Your task to perform on an android device: open the mobile data screen to see how much data has been used Image 0: 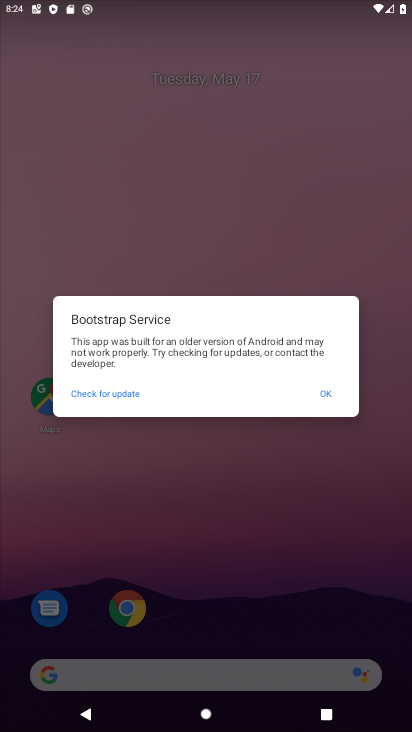
Step 0: click (331, 395)
Your task to perform on an android device: open the mobile data screen to see how much data has been used Image 1: 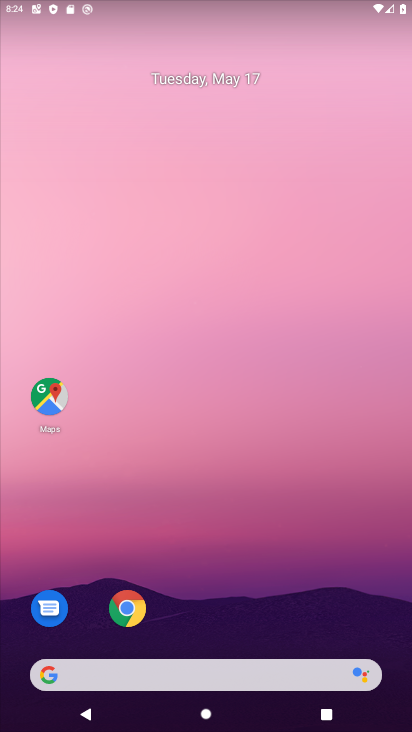
Step 1: drag from (304, 6) to (243, 606)
Your task to perform on an android device: open the mobile data screen to see how much data has been used Image 2: 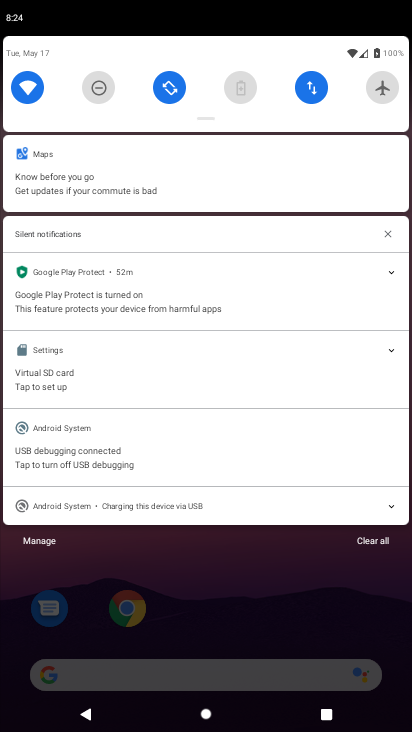
Step 2: click (315, 85)
Your task to perform on an android device: open the mobile data screen to see how much data has been used Image 3: 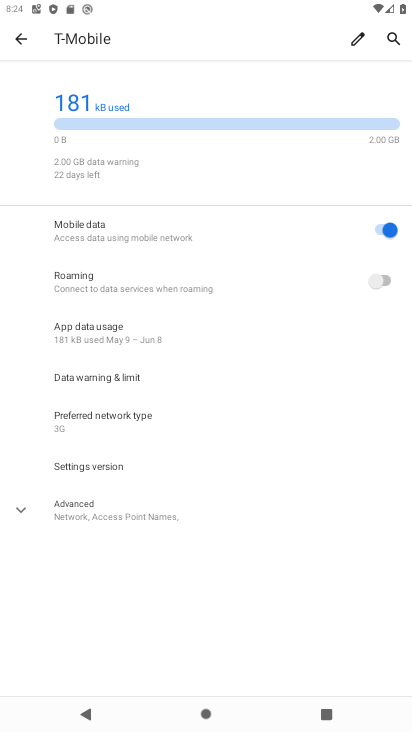
Step 3: task complete